Your task to perform on an android device: check android version Image 0: 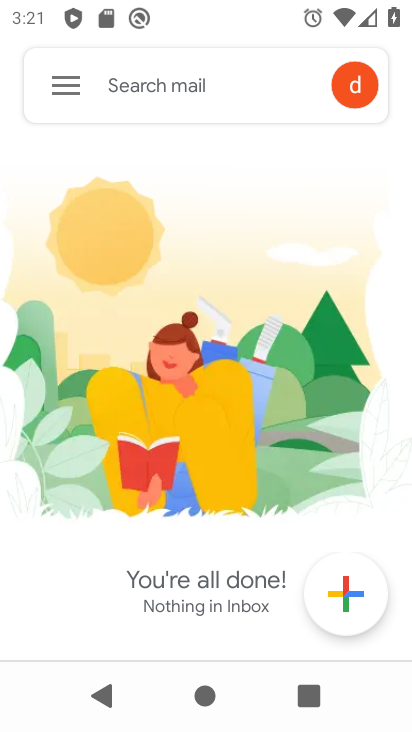
Step 0: press home button
Your task to perform on an android device: check android version Image 1: 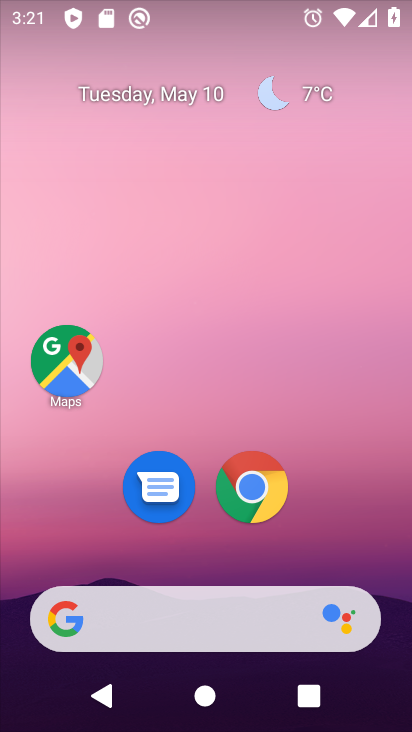
Step 1: drag from (323, 505) to (319, 209)
Your task to perform on an android device: check android version Image 2: 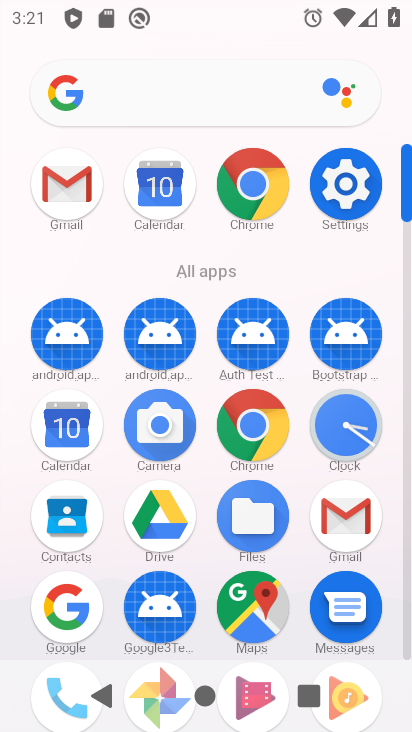
Step 2: click (354, 158)
Your task to perform on an android device: check android version Image 3: 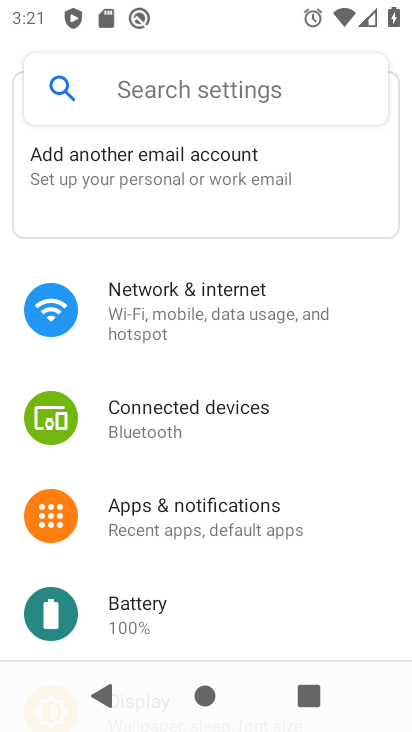
Step 3: drag from (275, 581) to (302, 172)
Your task to perform on an android device: check android version Image 4: 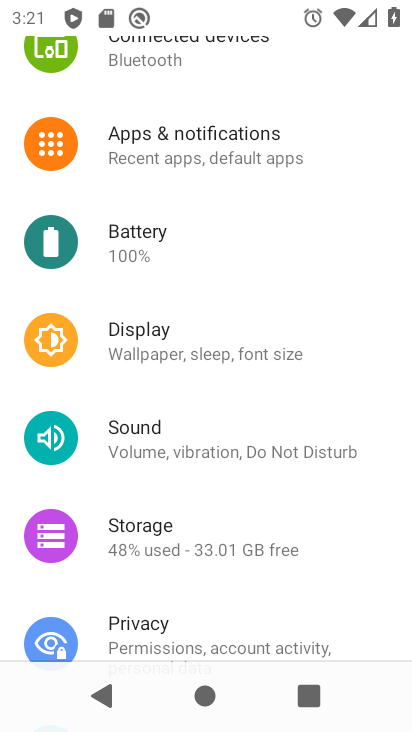
Step 4: drag from (243, 547) to (276, 226)
Your task to perform on an android device: check android version Image 5: 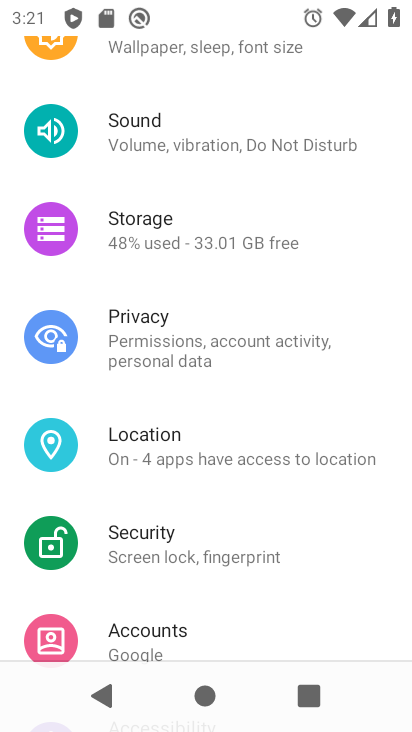
Step 5: drag from (242, 556) to (291, 236)
Your task to perform on an android device: check android version Image 6: 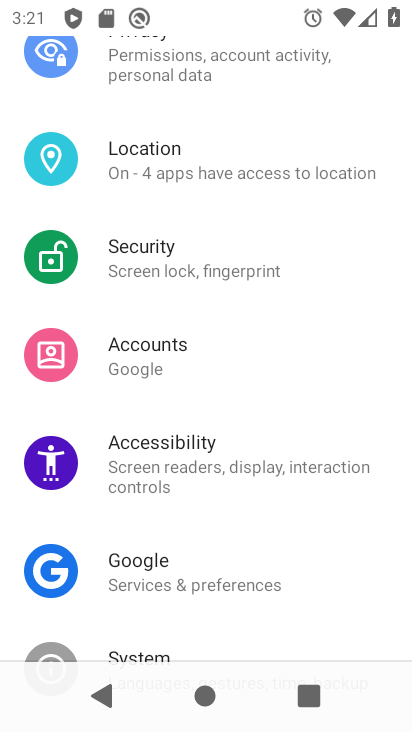
Step 6: drag from (272, 599) to (310, 331)
Your task to perform on an android device: check android version Image 7: 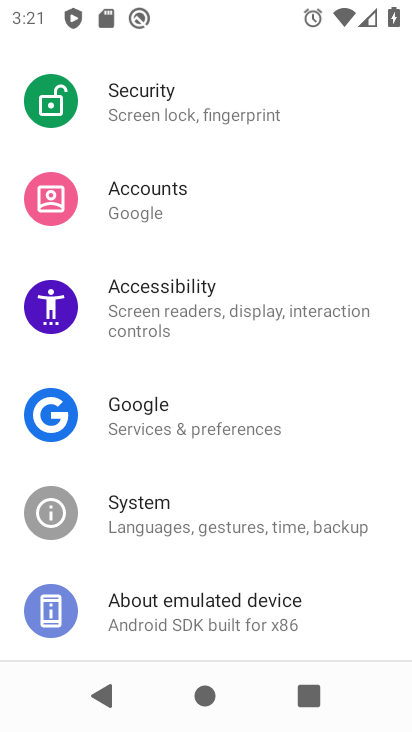
Step 7: click (238, 629)
Your task to perform on an android device: check android version Image 8: 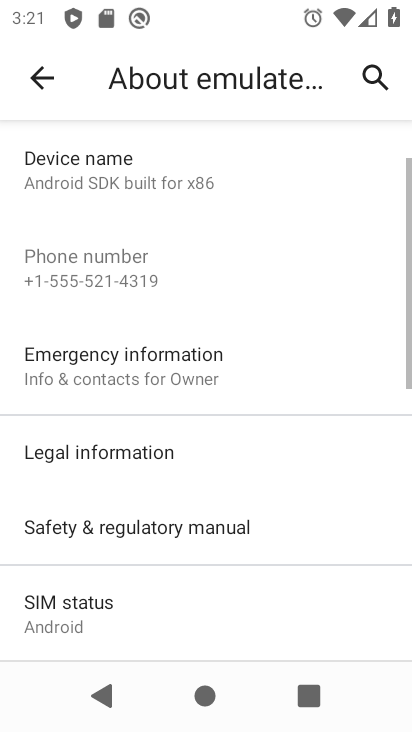
Step 8: drag from (227, 464) to (322, 111)
Your task to perform on an android device: check android version Image 9: 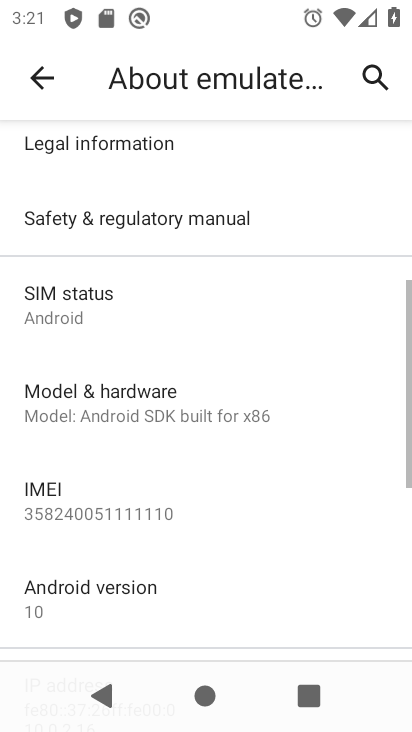
Step 9: click (96, 585)
Your task to perform on an android device: check android version Image 10: 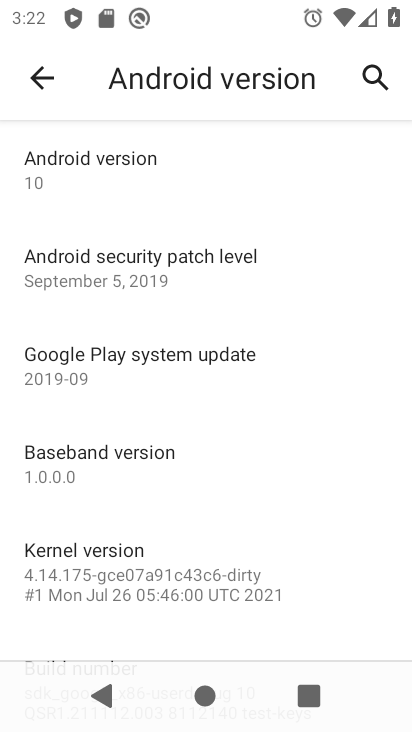
Step 10: click (164, 186)
Your task to perform on an android device: check android version Image 11: 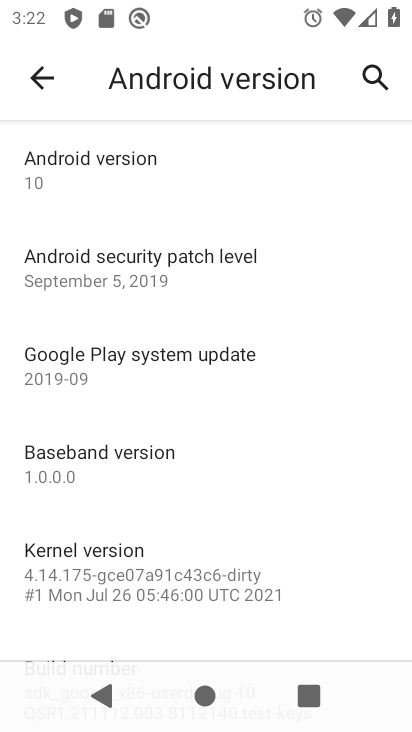
Step 11: task complete